Your task to perform on an android device: empty trash in google photos Image 0: 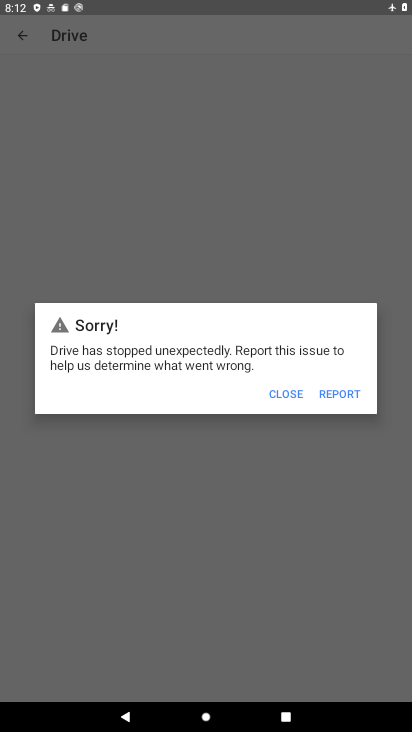
Step 0: click (274, 397)
Your task to perform on an android device: empty trash in google photos Image 1: 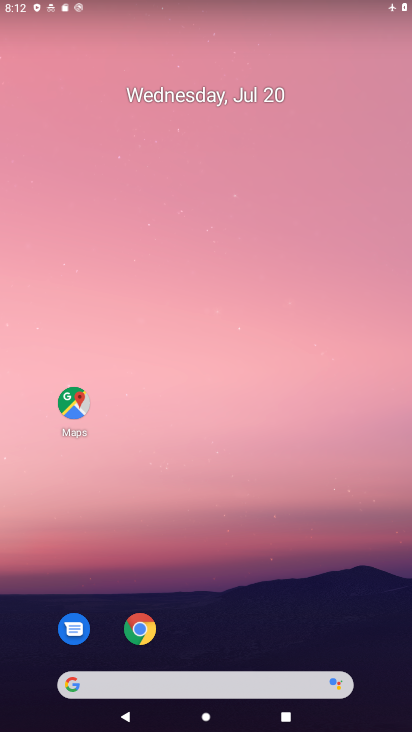
Step 1: drag from (272, 614) to (220, 124)
Your task to perform on an android device: empty trash in google photos Image 2: 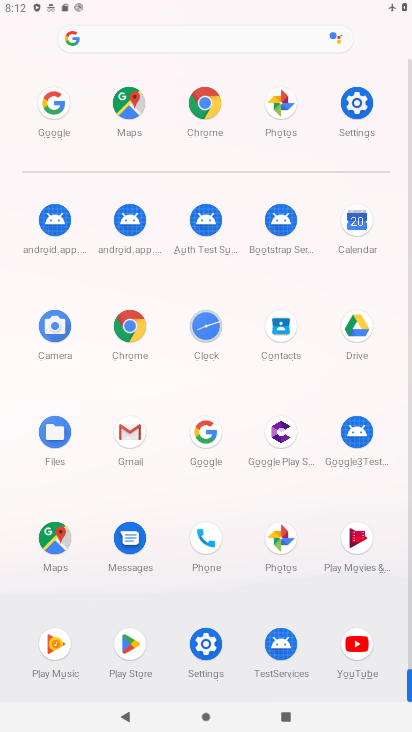
Step 2: click (283, 541)
Your task to perform on an android device: empty trash in google photos Image 3: 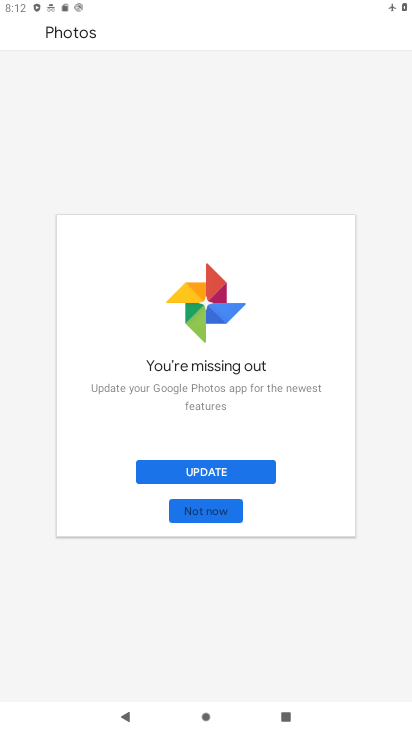
Step 3: click (217, 510)
Your task to perform on an android device: empty trash in google photos Image 4: 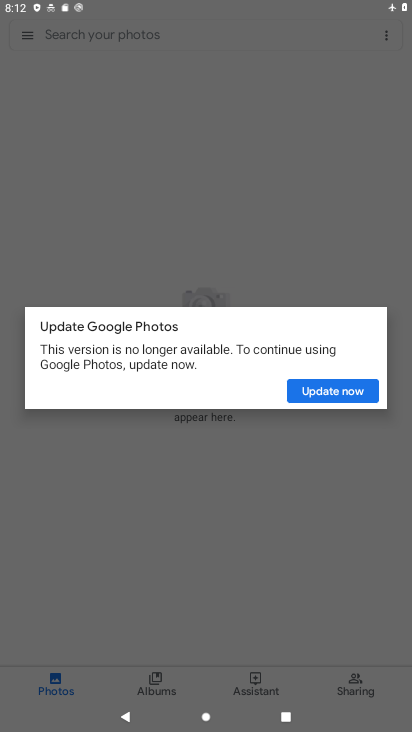
Step 4: click (301, 147)
Your task to perform on an android device: empty trash in google photos Image 5: 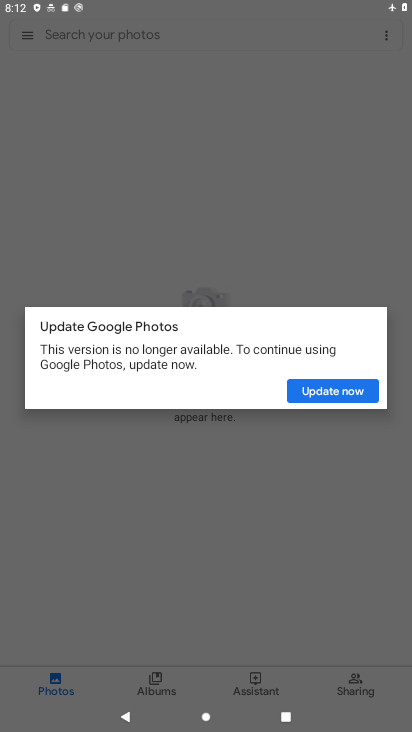
Step 5: click (346, 388)
Your task to perform on an android device: empty trash in google photos Image 6: 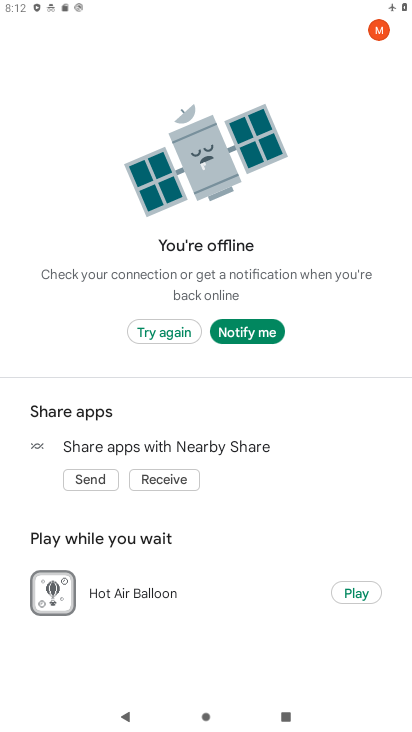
Step 6: press back button
Your task to perform on an android device: empty trash in google photos Image 7: 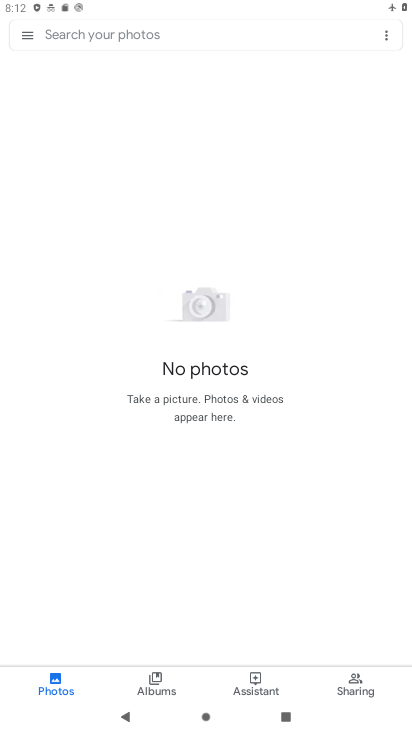
Step 7: drag from (25, 31) to (112, 463)
Your task to perform on an android device: empty trash in google photos Image 8: 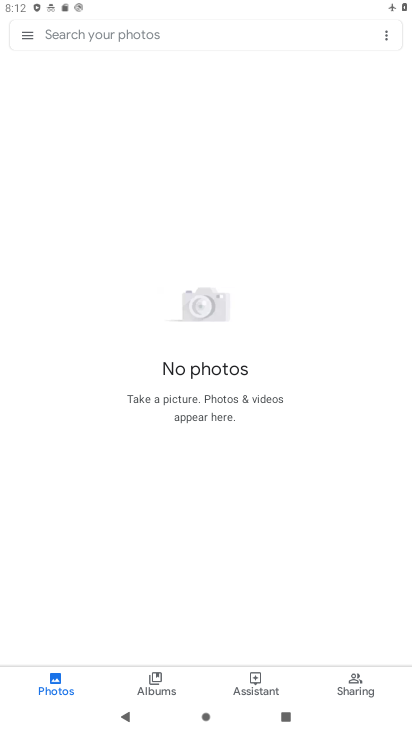
Step 8: drag from (30, 33) to (65, 191)
Your task to perform on an android device: empty trash in google photos Image 9: 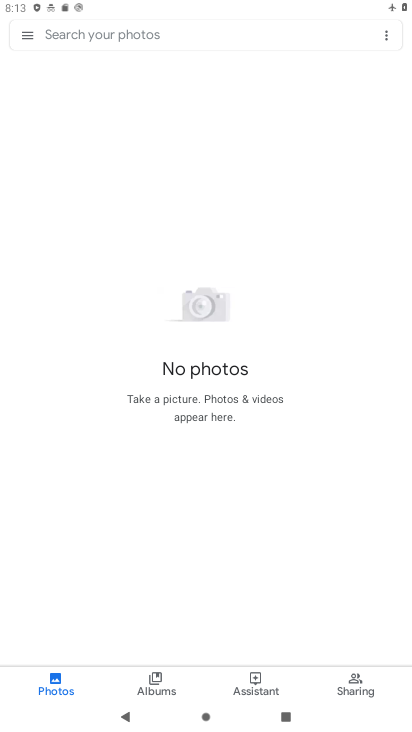
Step 9: click (25, 31)
Your task to perform on an android device: empty trash in google photos Image 10: 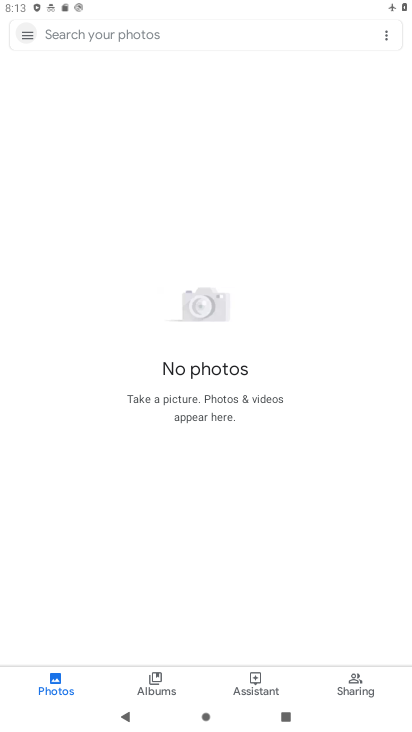
Step 10: click (25, 31)
Your task to perform on an android device: empty trash in google photos Image 11: 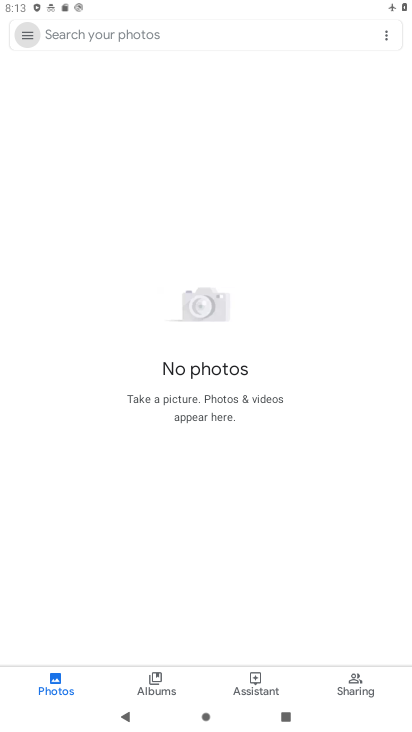
Step 11: click (25, 31)
Your task to perform on an android device: empty trash in google photos Image 12: 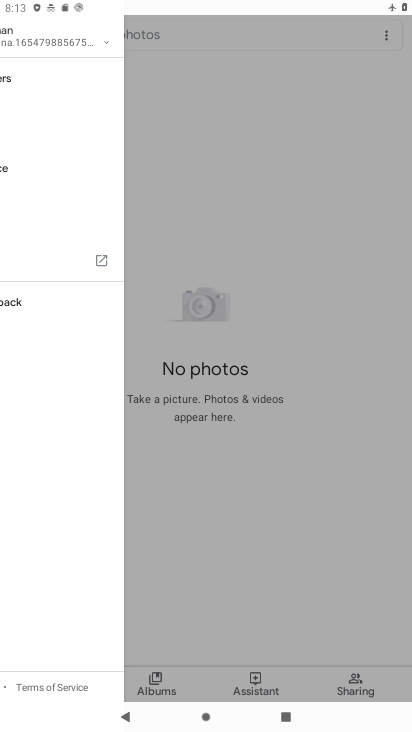
Step 12: click (25, 31)
Your task to perform on an android device: empty trash in google photos Image 13: 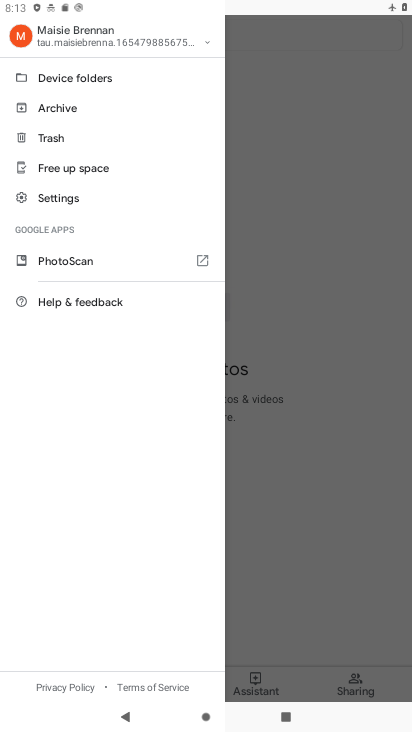
Step 13: click (65, 197)
Your task to perform on an android device: empty trash in google photos Image 14: 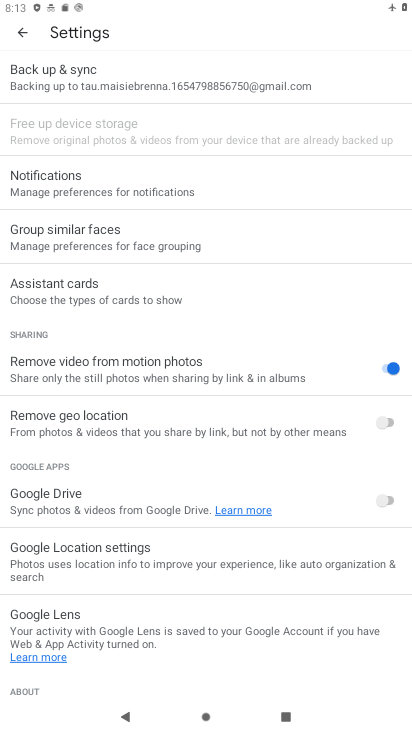
Step 14: click (20, 34)
Your task to perform on an android device: empty trash in google photos Image 15: 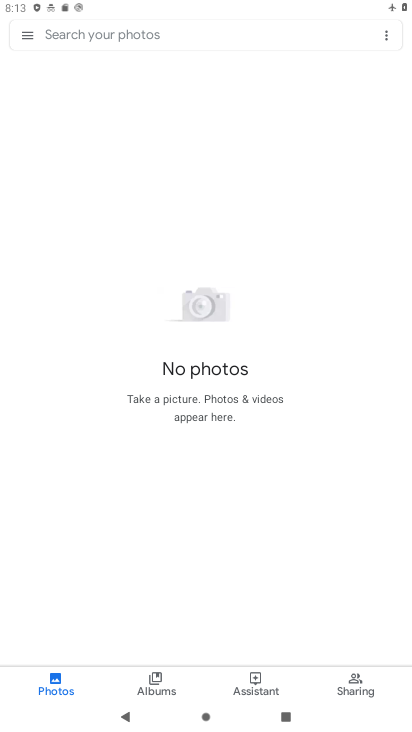
Step 15: click (27, 41)
Your task to perform on an android device: empty trash in google photos Image 16: 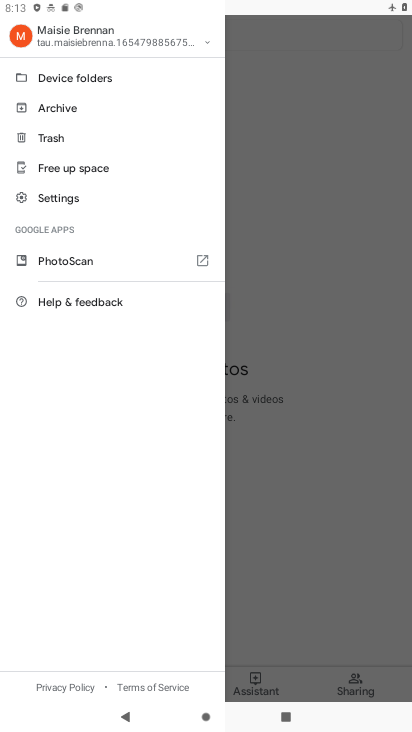
Step 16: click (54, 140)
Your task to perform on an android device: empty trash in google photos Image 17: 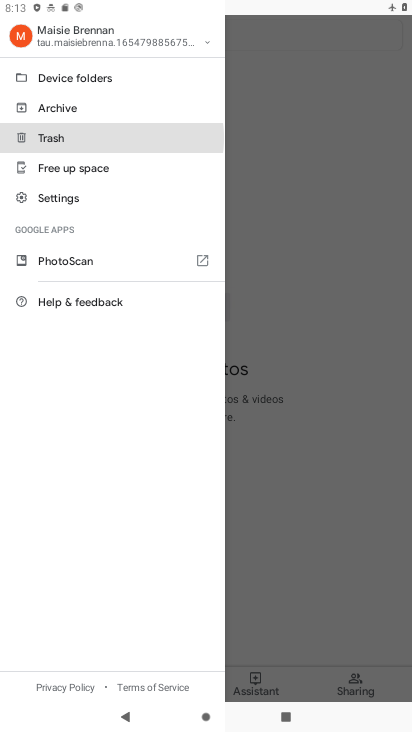
Step 17: click (54, 138)
Your task to perform on an android device: empty trash in google photos Image 18: 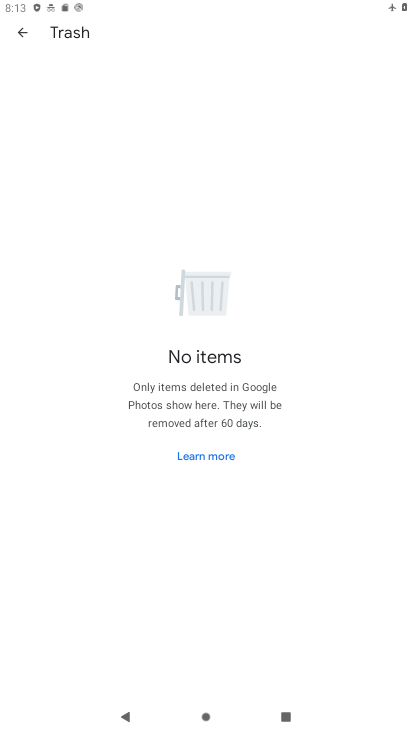
Step 18: task complete